Your task to perform on an android device: Open Google Maps and go to "Timeline" Image 0: 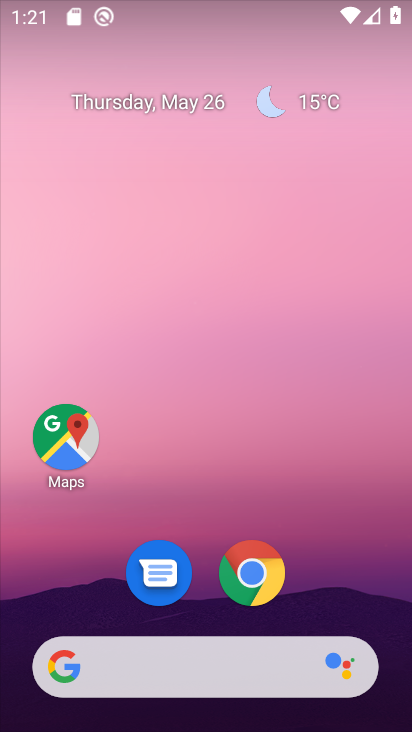
Step 0: click (50, 434)
Your task to perform on an android device: Open Google Maps and go to "Timeline" Image 1: 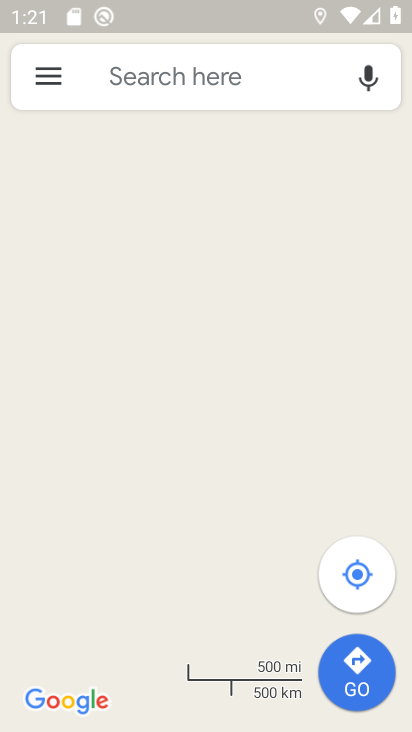
Step 1: click (42, 62)
Your task to perform on an android device: Open Google Maps and go to "Timeline" Image 2: 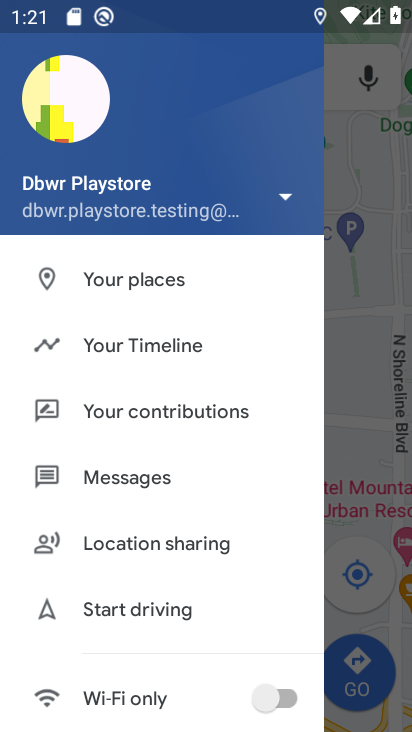
Step 2: click (178, 334)
Your task to perform on an android device: Open Google Maps and go to "Timeline" Image 3: 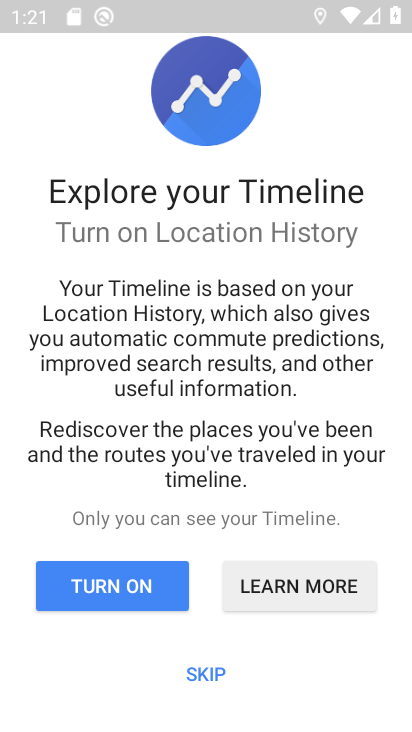
Step 3: click (215, 671)
Your task to perform on an android device: Open Google Maps and go to "Timeline" Image 4: 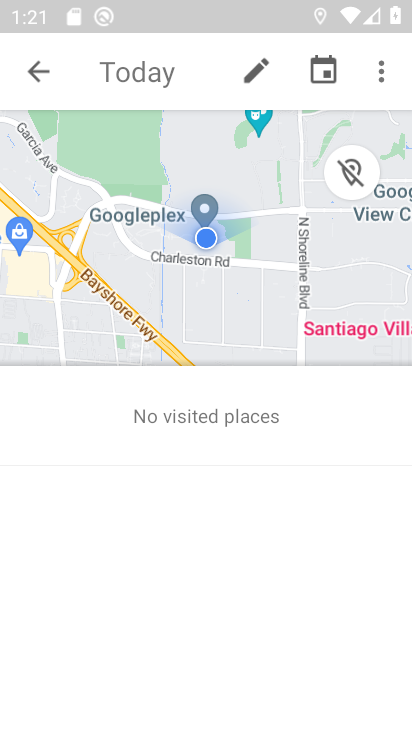
Step 4: task complete